Your task to perform on an android device: toggle airplane mode Image 0: 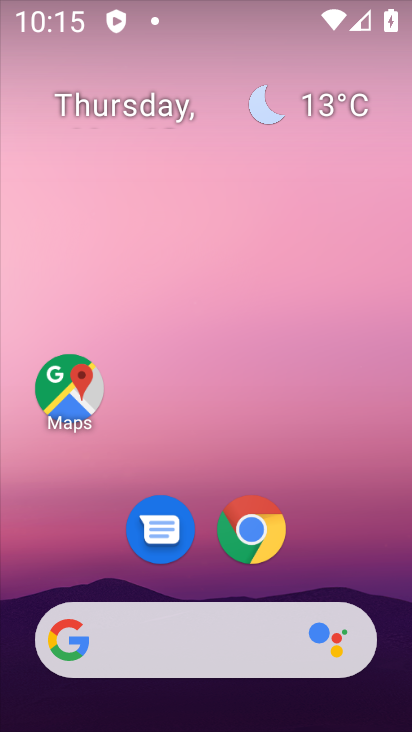
Step 0: drag from (312, 568) to (332, 12)
Your task to perform on an android device: toggle airplane mode Image 1: 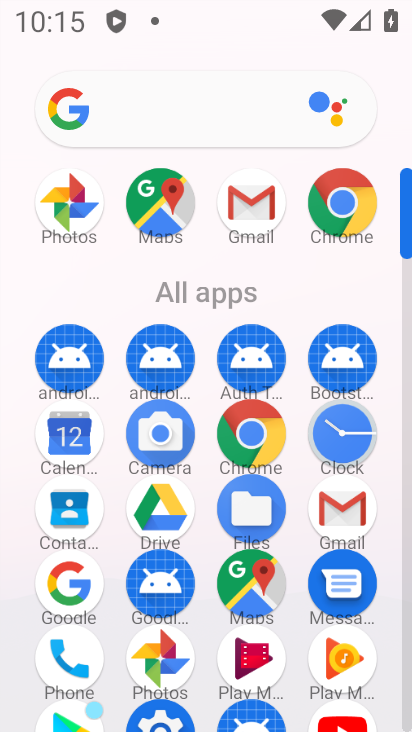
Step 1: drag from (238, 470) to (238, 168)
Your task to perform on an android device: toggle airplane mode Image 2: 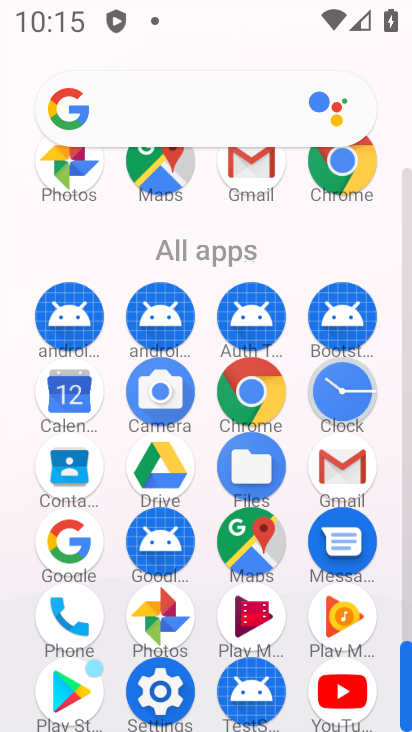
Step 2: click (170, 678)
Your task to perform on an android device: toggle airplane mode Image 3: 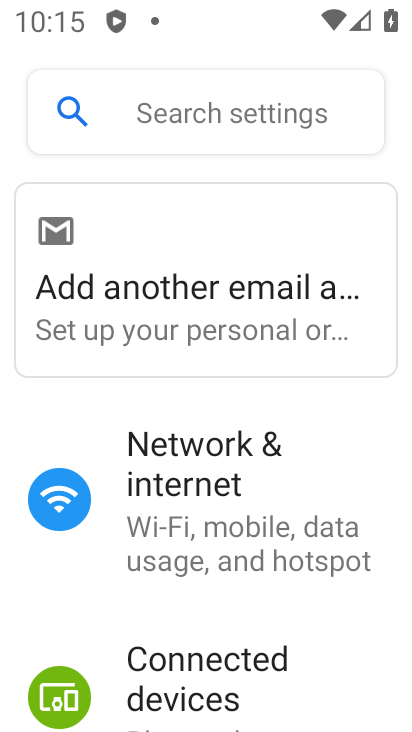
Step 3: drag from (234, 662) to (250, 602)
Your task to perform on an android device: toggle airplane mode Image 4: 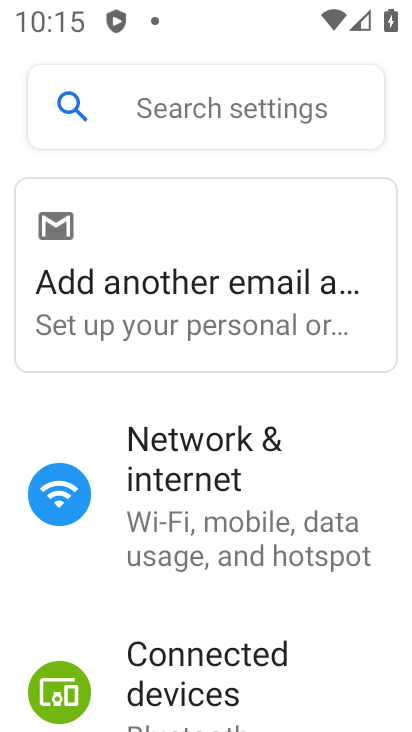
Step 4: click (237, 520)
Your task to perform on an android device: toggle airplane mode Image 5: 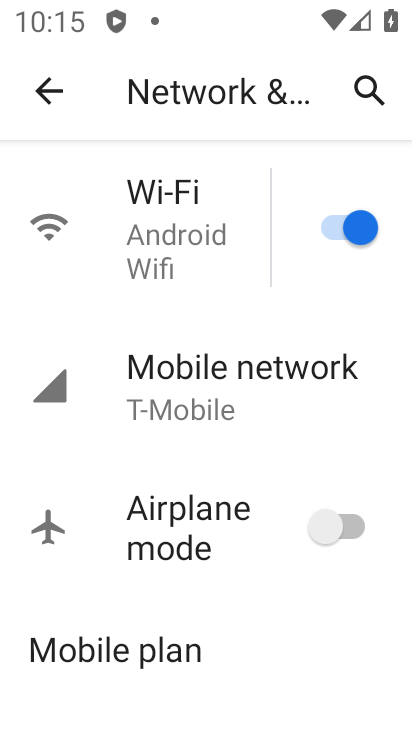
Step 5: click (326, 515)
Your task to perform on an android device: toggle airplane mode Image 6: 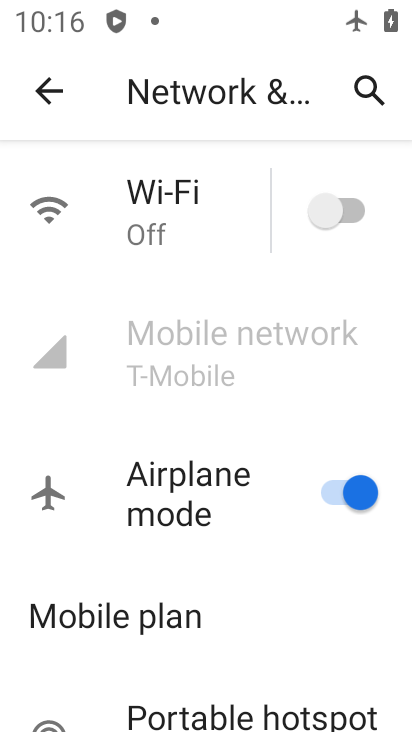
Step 6: task complete